Your task to perform on an android device: Open Chrome and go to settings Image 0: 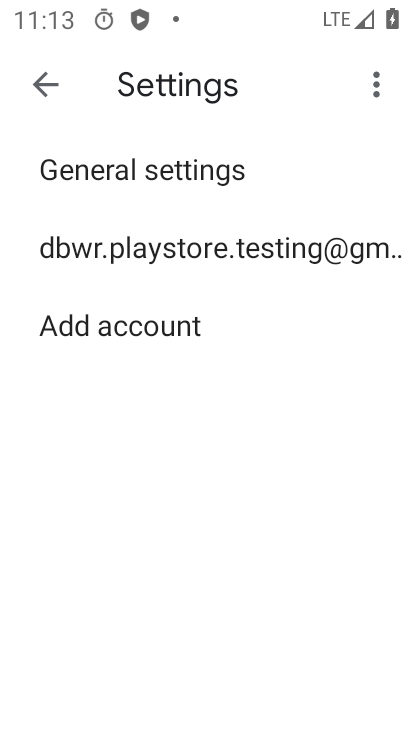
Step 0: click (169, 253)
Your task to perform on an android device: Open Chrome and go to settings Image 1: 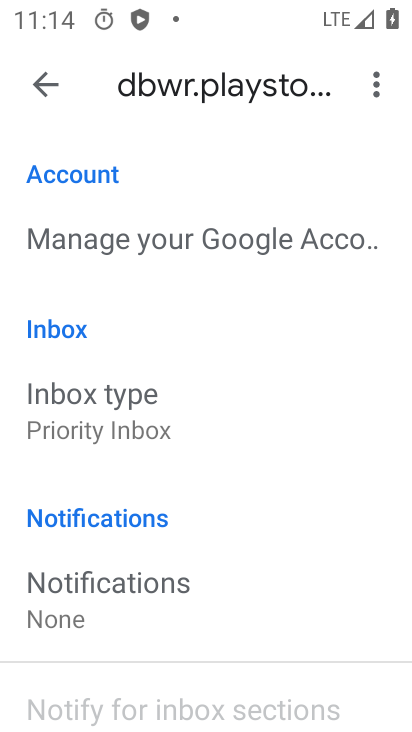
Step 1: drag from (190, 617) to (286, 251)
Your task to perform on an android device: Open Chrome and go to settings Image 2: 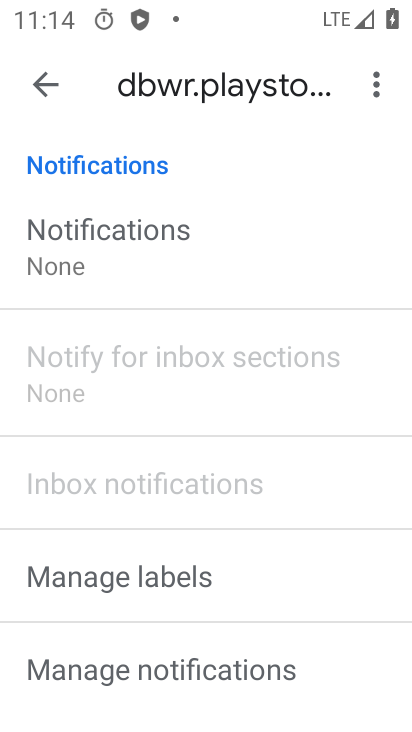
Step 2: press home button
Your task to perform on an android device: Open Chrome and go to settings Image 3: 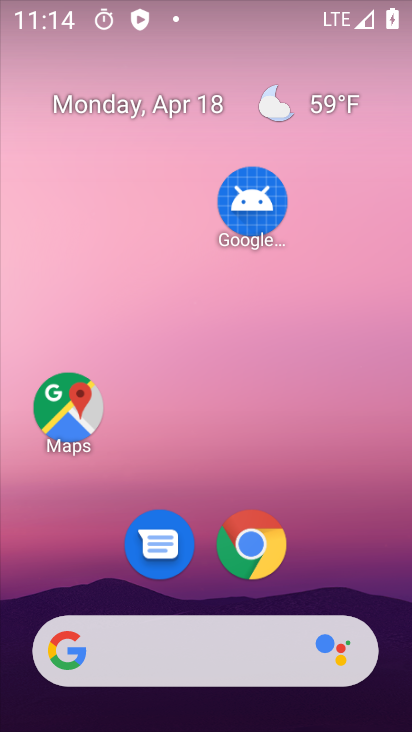
Step 3: click (248, 542)
Your task to perform on an android device: Open Chrome and go to settings Image 4: 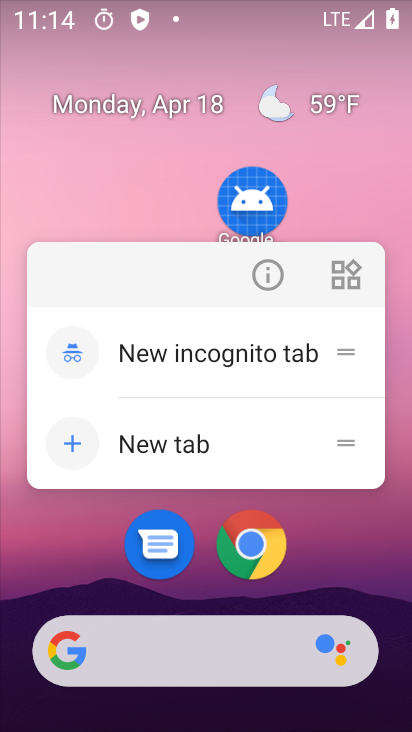
Step 4: click (248, 541)
Your task to perform on an android device: Open Chrome and go to settings Image 5: 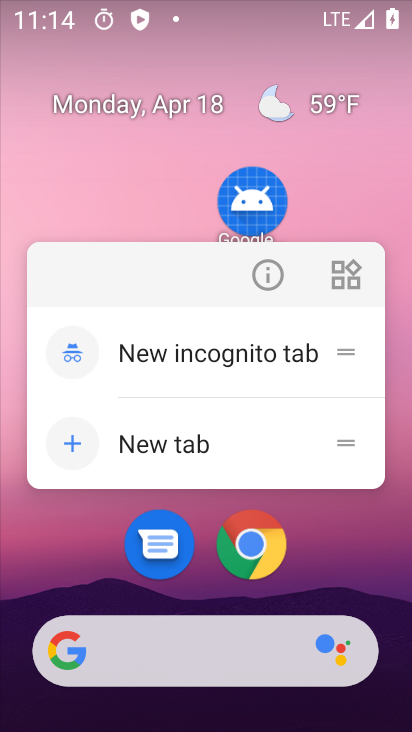
Step 5: click (248, 540)
Your task to perform on an android device: Open Chrome and go to settings Image 6: 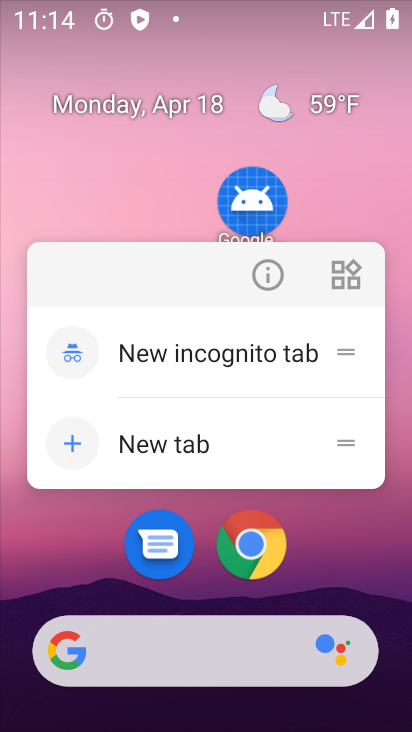
Step 6: click (248, 540)
Your task to perform on an android device: Open Chrome and go to settings Image 7: 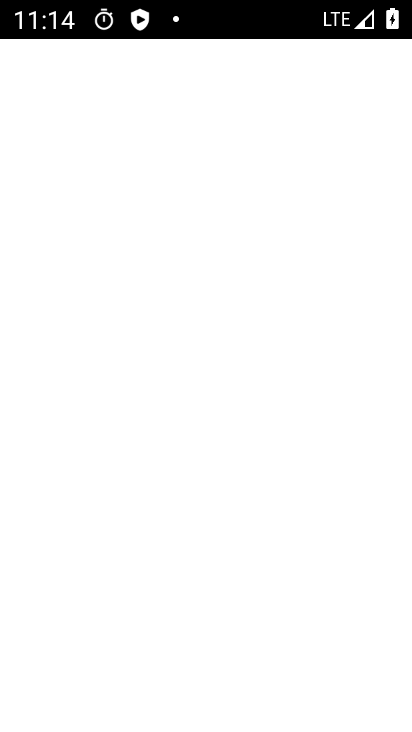
Step 7: click (248, 539)
Your task to perform on an android device: Open Chrome and go to settings Image 8: 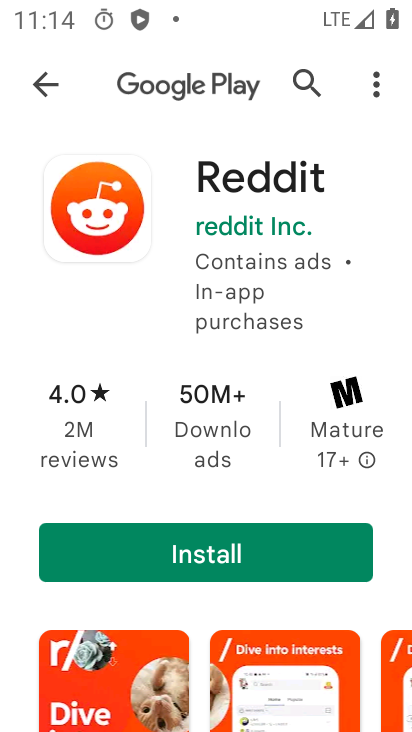
Step 8: click (47, 73)
Your task to perform on an android device: Open Chrome and go to settings Image 9: 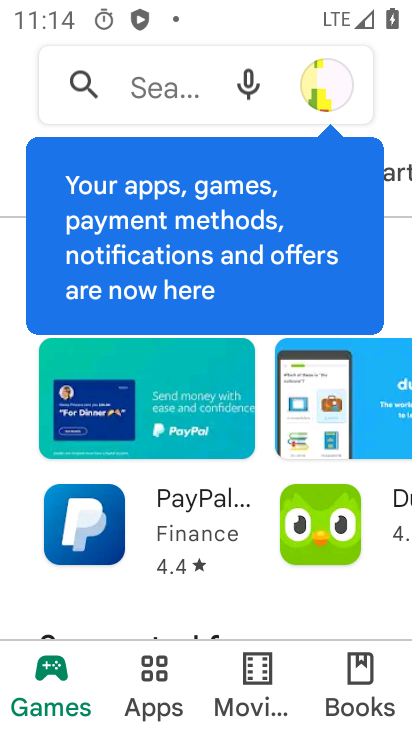
Step 9: press home button
Your task to perform on an android device: Open Chrome and go to settings Image 10: 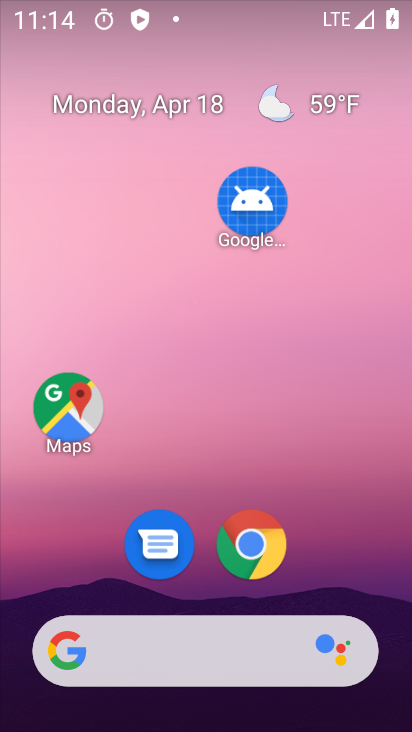
Step 10: click (252, 529)
Your task to perform on an android device: Open Chrome and go to settings Image 11: 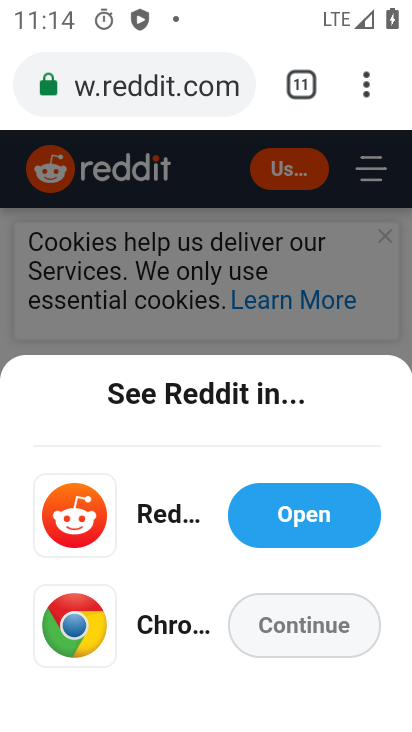
Step 11: click (362, 96)
Your task to perform on an android device: Open Chrome and go to settings Image 12: 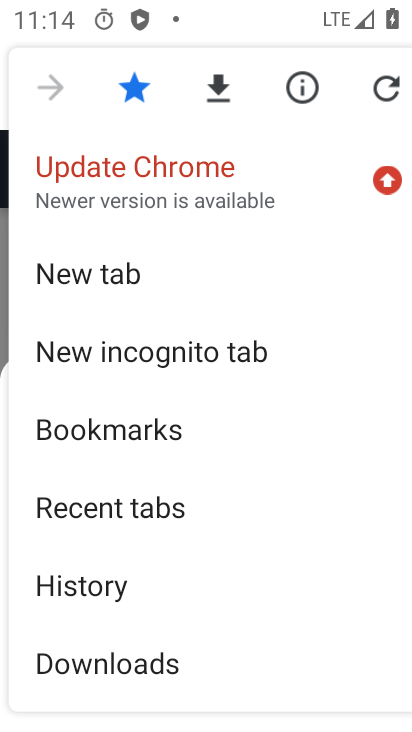
Step 12: drag from (159, 642) to (327, 56)
Your task to perform on an android device: Open Chrome and go to settings Image 13: 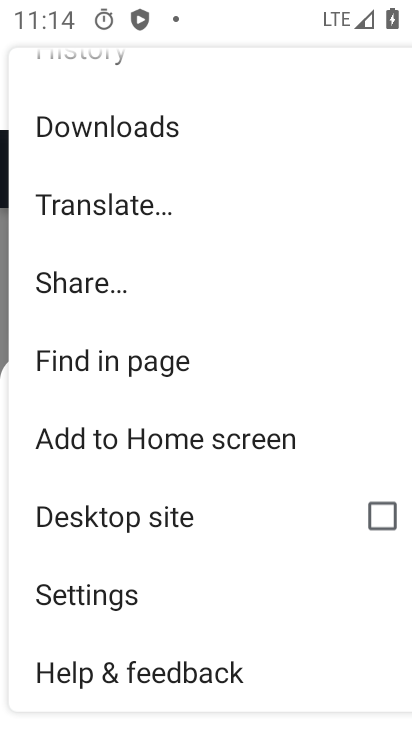
Step 13: click (128, 589)
Your task to perform on an android device: Open Chrome and go to settings Image 14: 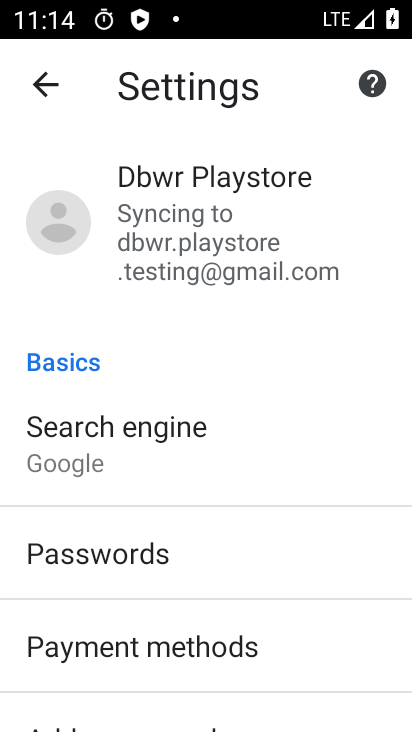
Step 14: task complete